Your task to perform on an android device: Go to location settings Image 0: 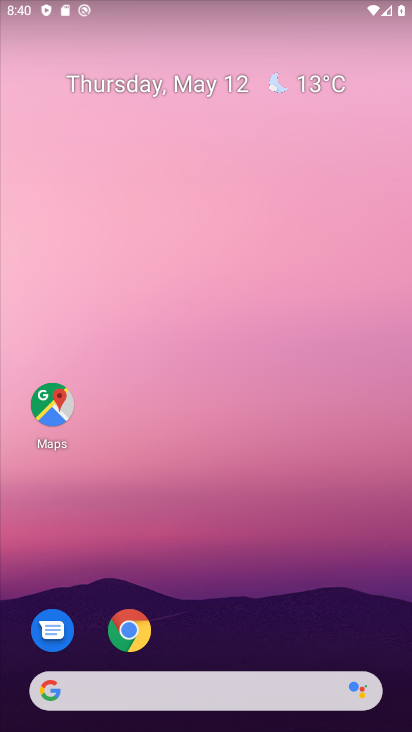
Step 0: drag from (216, 683) to (313, 106)
Your task to perform on an android device: Go to location settings Image 1: 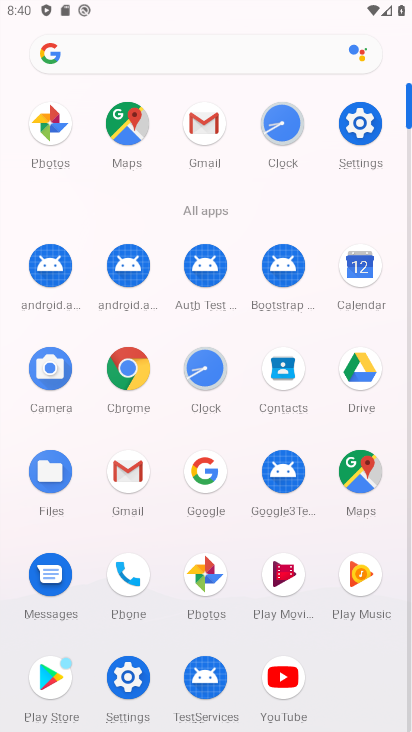
Step 1: click (335, 146)
Your task to perform on an android device: Go to location settings Image 2: 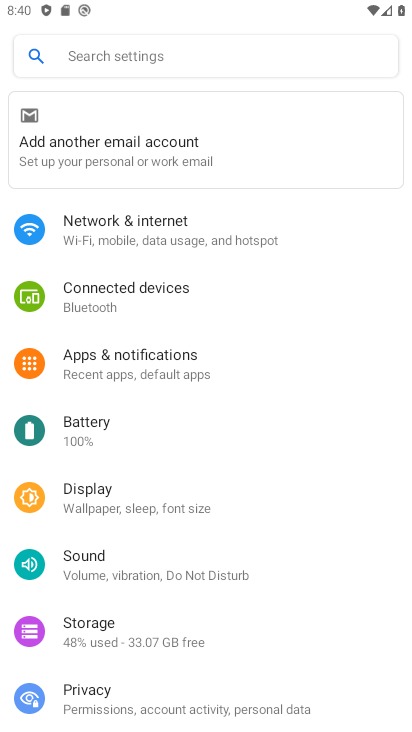
Step 2: drag from (141, 699) to (249, 180)
Your task to perform on an android device: Go to location settings Image 3: 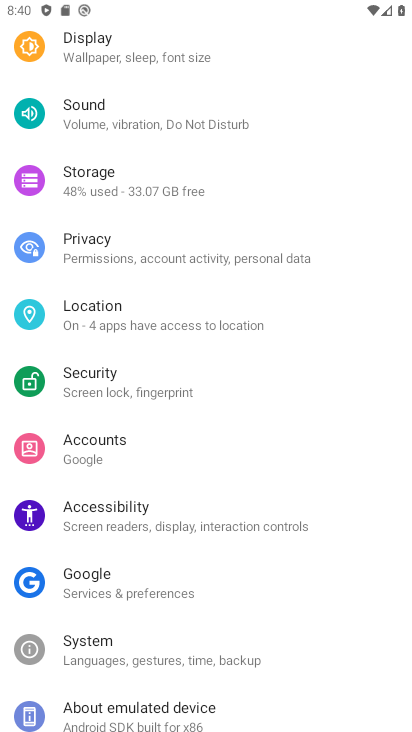
Step 3: click (104, 325)
Your task to perform on an android device: Go to location settings Image 4: 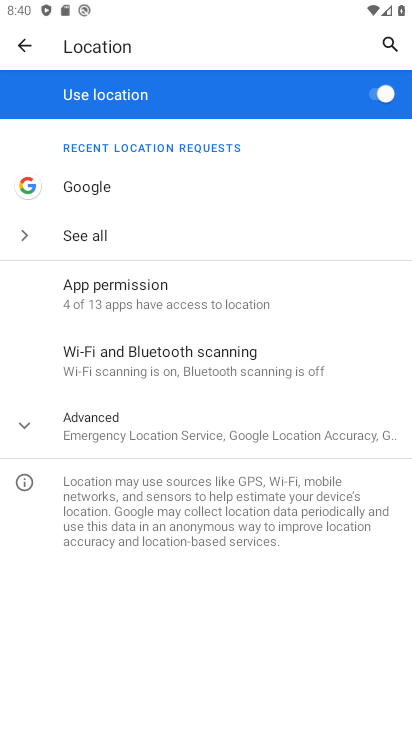
Step 4: task complete